Your task to perform on an android device: turn on notifications settings in the gmail app Image 0: 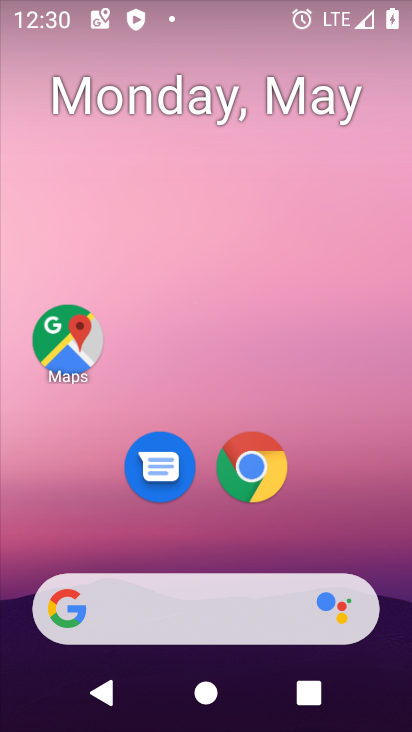
Step 0: drag from (378, 569) to (392, 13)
Your task to perform on an android device: turn on notifications settings in the gmail app Image 1: 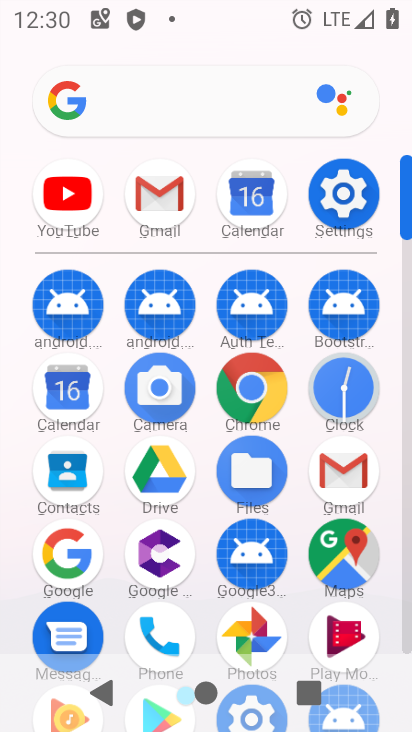
Step 1: click (154, 201)
Your task to perform on an android device: turn on notifications settings in the gmail app Image 2: 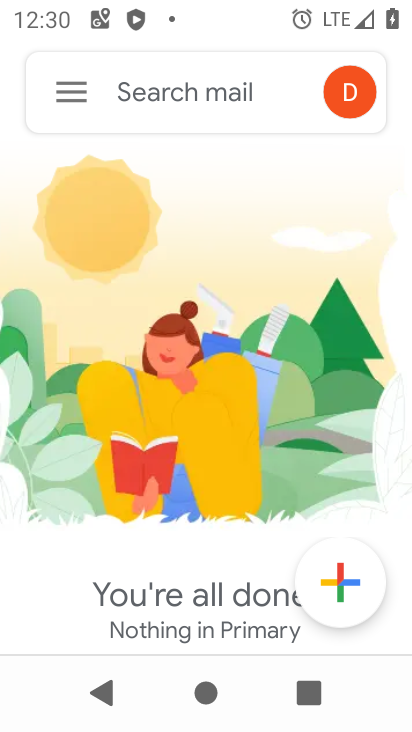
Step 2: click (67, 97)
Your task to perform on an android device: turn on notifications settings in the gmail app Image 3: 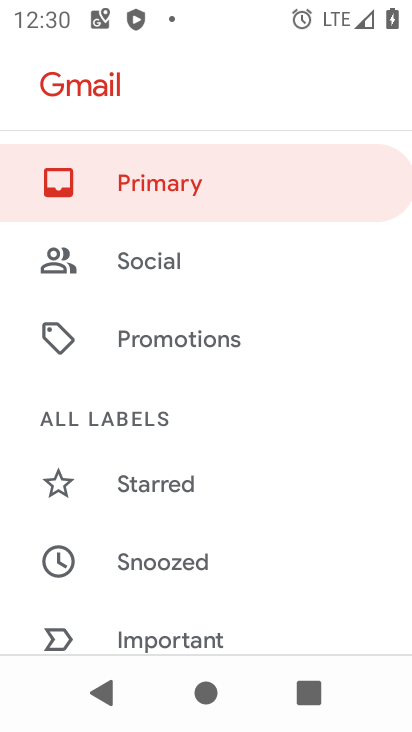
Step 3: drag from (238, 578) to (235, 228)
Your task to perform on an android device: turn on notifications settings in the gmail app Image 4: 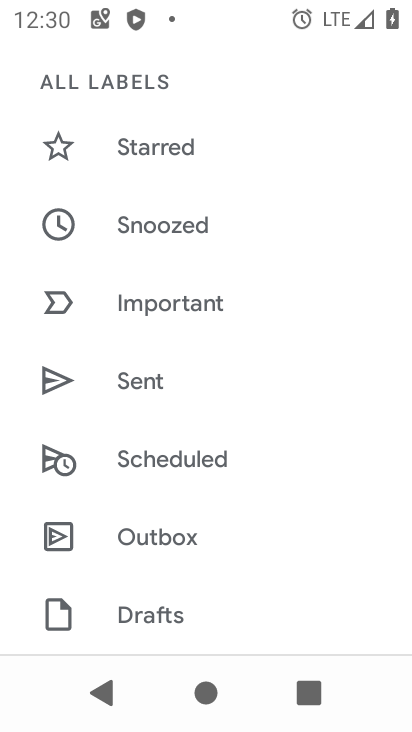
Step 4: drag from (240, 549) to (235, 101)
Your task to perform on an android device: turn on notifications settings in the gmail app Image 5: 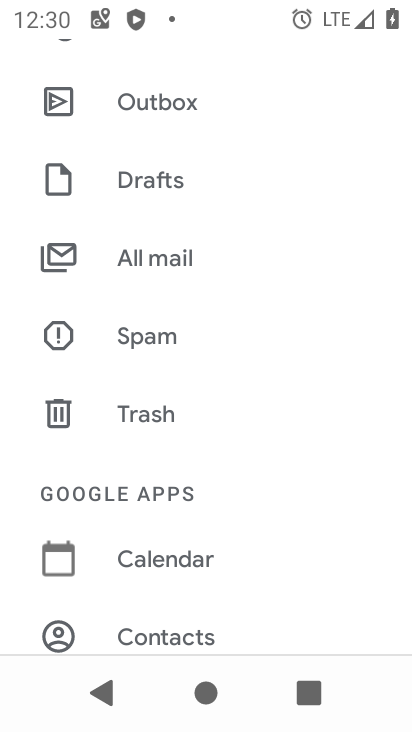
Step 5: drag from (247, 535) to (239, 228)
Your task to perform on an android device: turn on notifications settings in the gmail app Image 6: 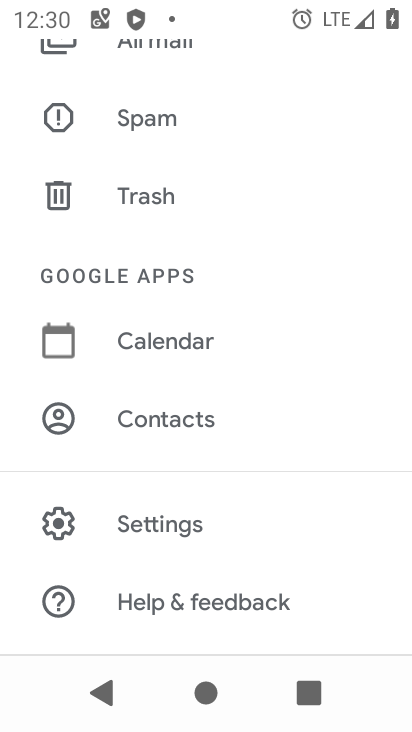
Step 6: click (144, 530)
Your task to perform on an android device: turn on notifications settings in the gmail app Image 7: 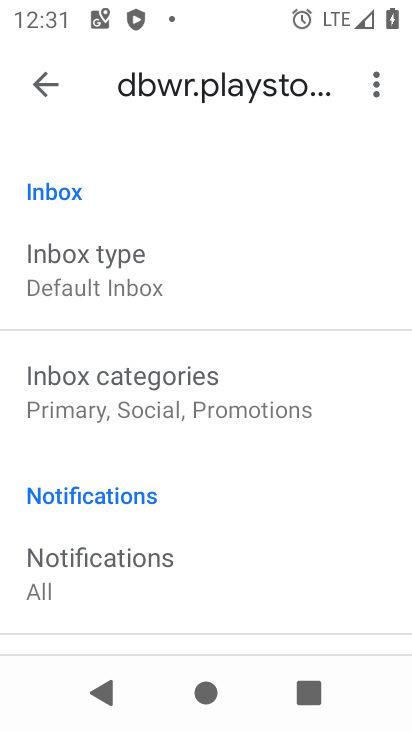
Step 7: click (43, 85)
Your task to perform on an android device: turn on notifications settings in the gmail app Image 8: 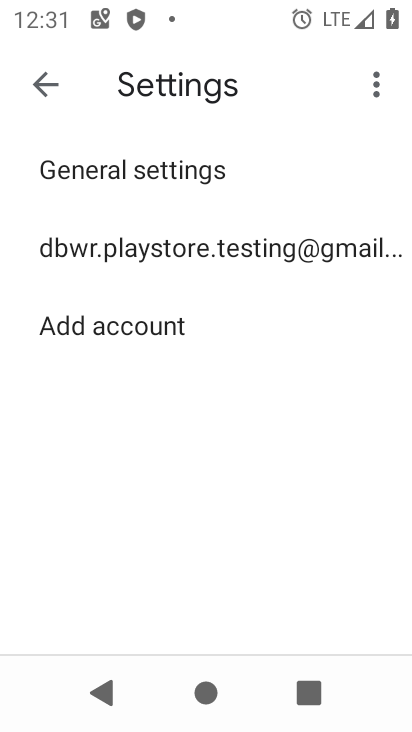
Step 8: click (78, 165)
Your task to perform on an android device: turn on notifications settings in the gmail app Image 9: 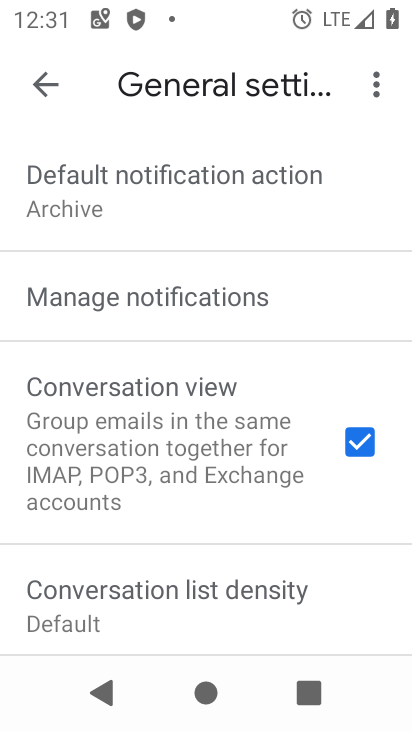
Step 9: click (96, 296)
Your task to perform on an android device: turn on notifications settings in the gmail app Image 10: 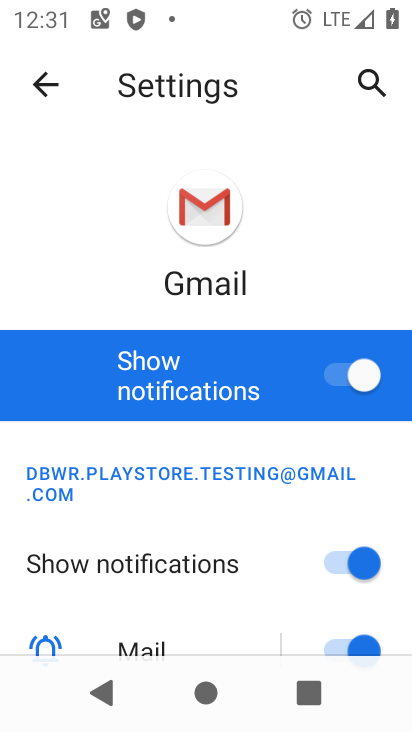
Step 10: task complete